Your task to perform on an android device: check battery use Image 0: 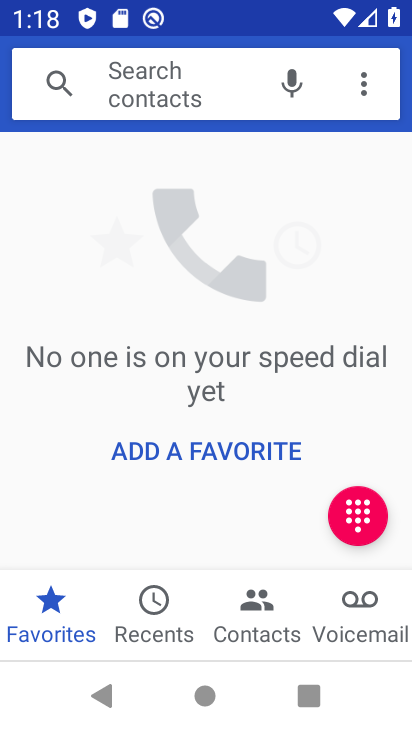
Step 0: press home button
Your task to perform on an android device: check battery use Image 1: 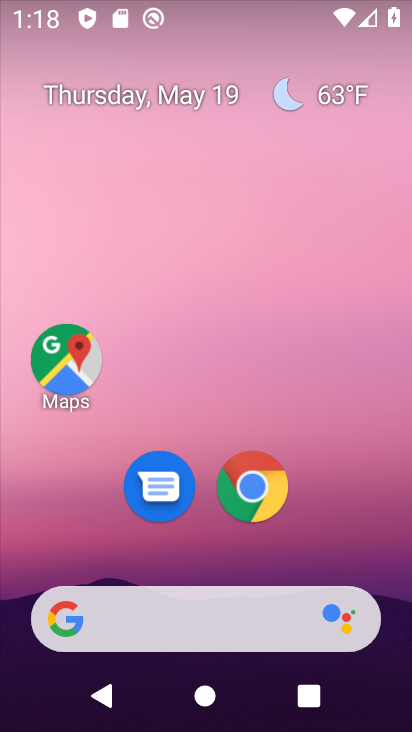
Step 1: drag from (357, 562) to (292, 6)
Your task to perform on an android device: check battery use Image 2: 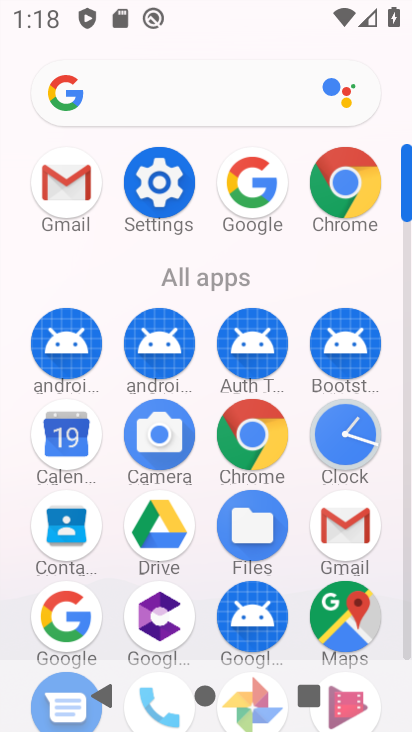
Step 2: click (155, 169)
Your task to perform on an android device: check battery use Image 3: 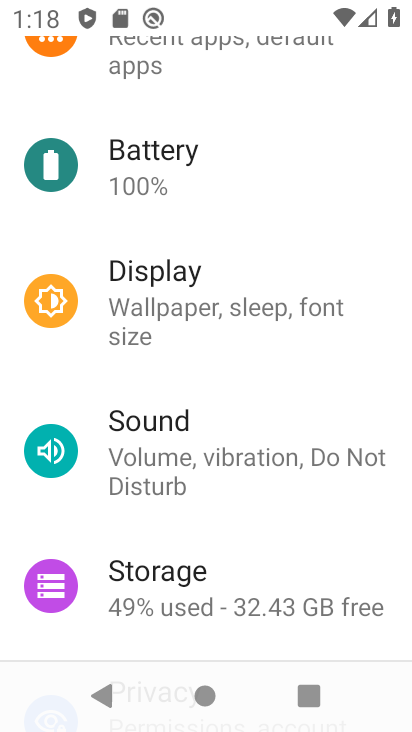
Step 3: click (214, 166)
Your task to perform on an android device: check battery use Image 4: 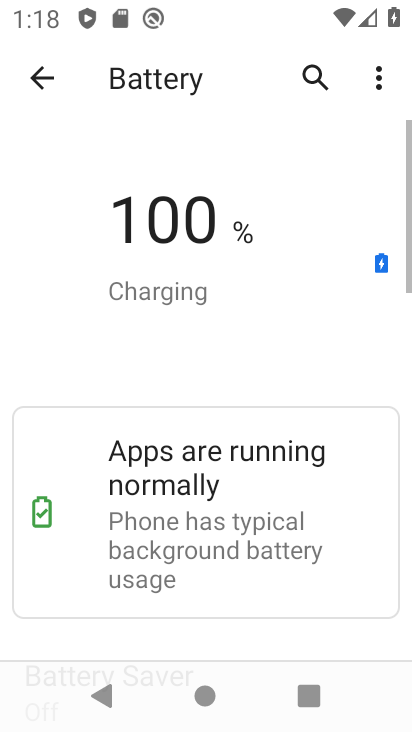
Step 4: click (371, 79)
Your task to perform on an android device: check battery use Image 5: 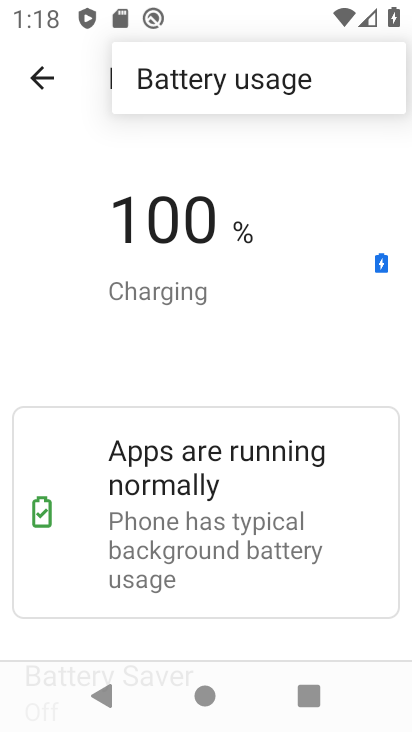
Step 5: click (257, 66)
Your task to perform on an android device: check battery use Image 6: 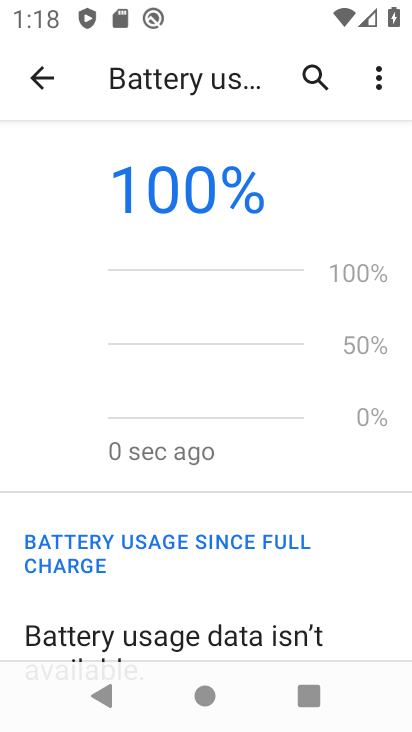
Step 6: task complete